Your task to perform on an android device: empty trash in the gmail app Image 0: 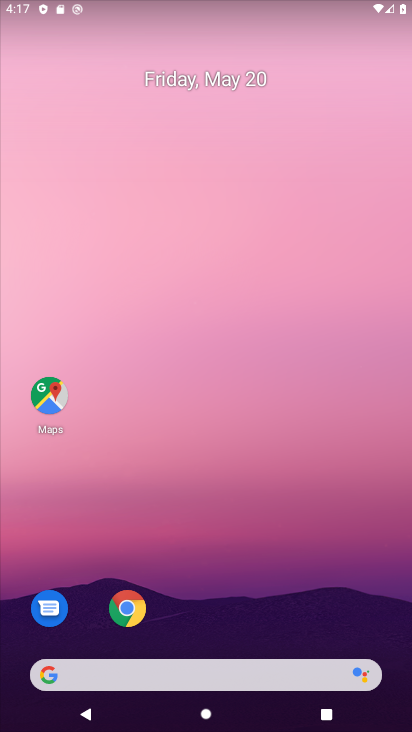
Step 0: drag from (187, 660) to (135, 126)
Your task to perform on an android device: empty trash in the gmail app Image 1: 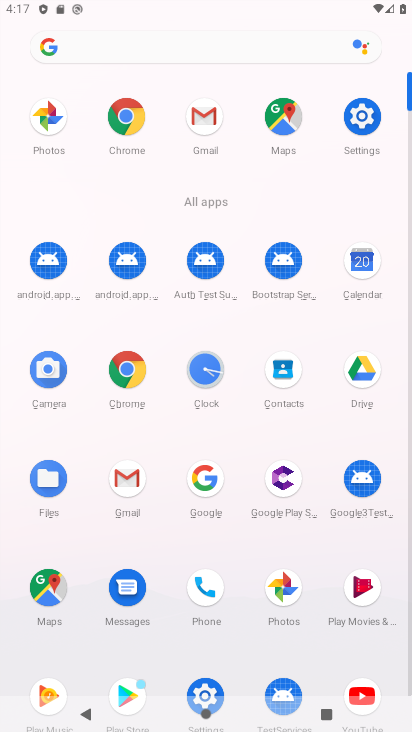
Step 1: click (115, 484)
Your task to perform on an android device: empty trash in the gmail app Image 2: 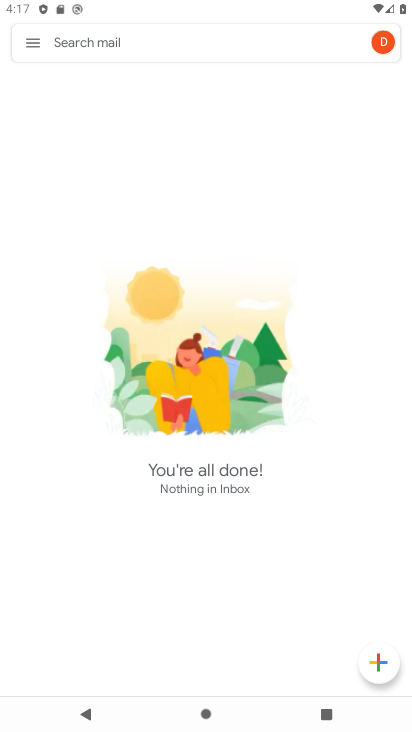
Step 2: click (33, 43)
Your task to perform on an android device: empty trash in the gmail app Image 3: 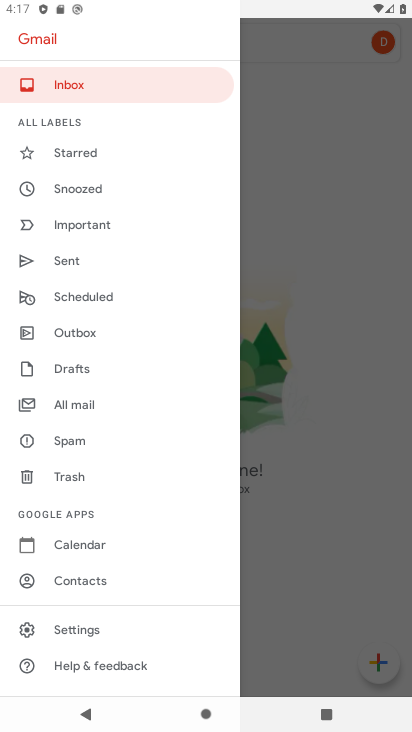
Step 3: click (69, 470)
Your task to perform on an android device: empty trash in the gmail app Image 4: 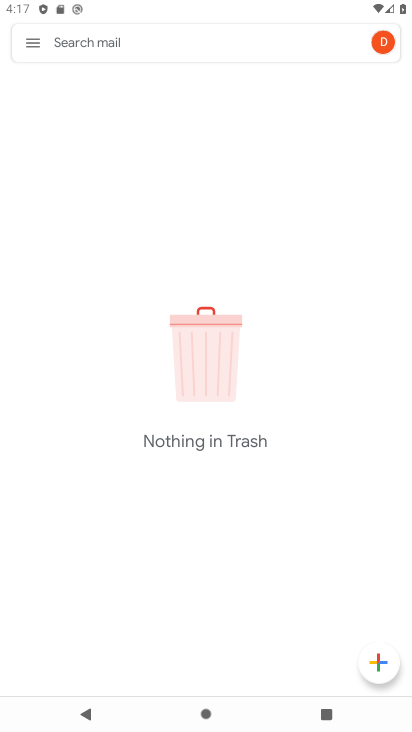
Step 4: task complete